Your task to perform on an android device: When is my next meeting? Image 0: 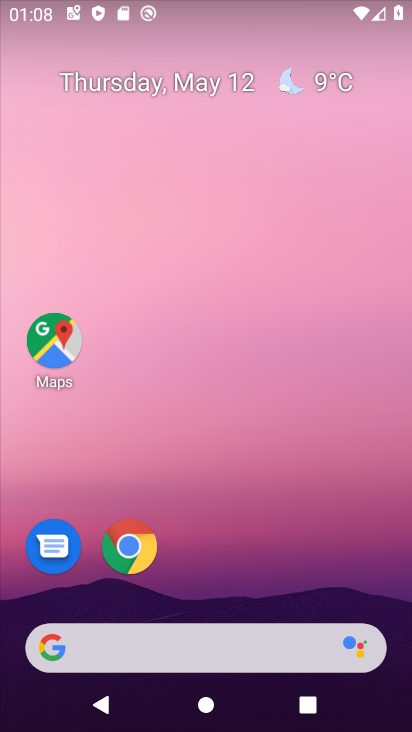
Step 0: drag from (161, 585) to (200, 264)
Your task to perform on an android device: When is my next meeting? Image 1: 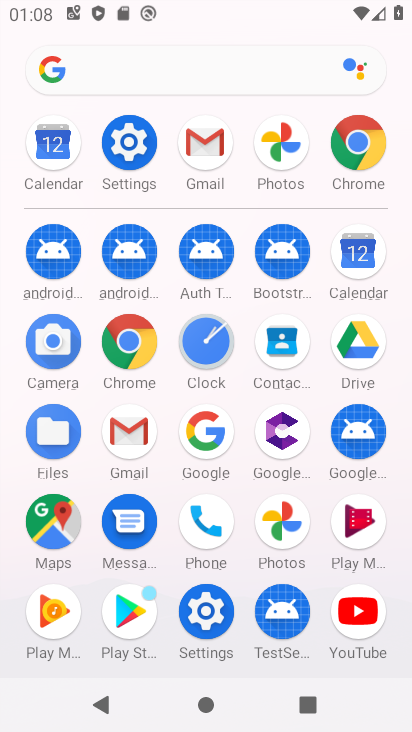
Step 1: click (350, 257)
Your task to perform on an android device: When is my next meeting? Image 2: 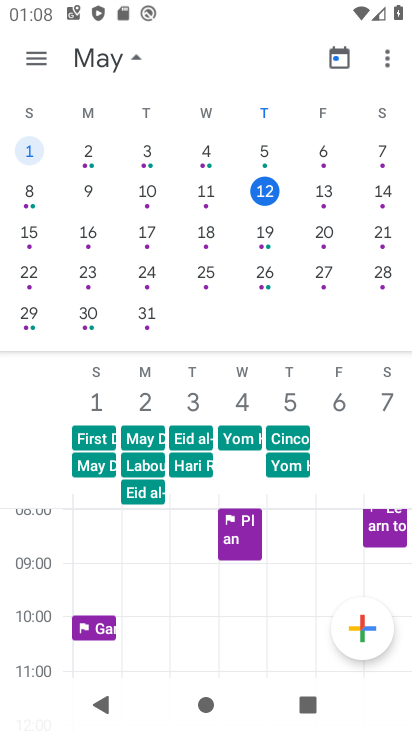
Step 2: click (325, 196)
Your task to perform on an android device: When is my next meeting? Image 3: 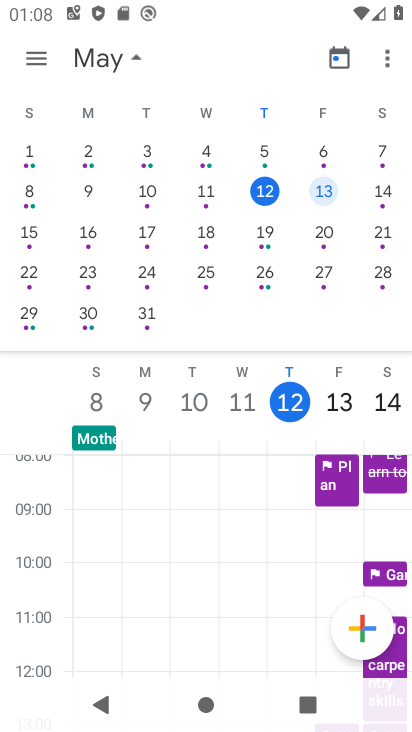
Step 3: click (380, 183)
Your task to perform on an android device: When is my next meeting? Image 4: 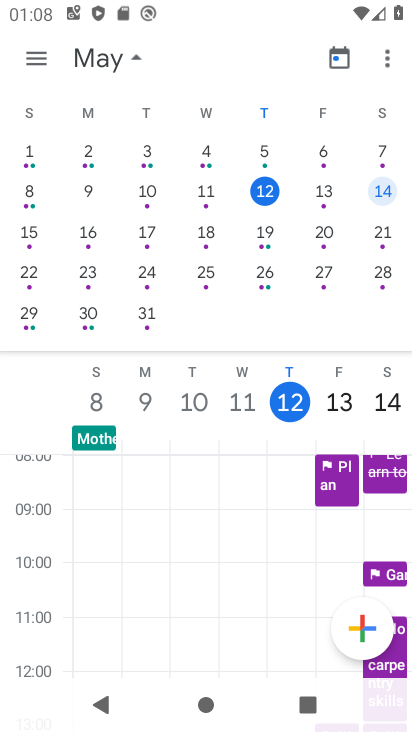
Step 4: click (26, 239)
Your task to perform on an android device: When is my next meeting? Image 5: 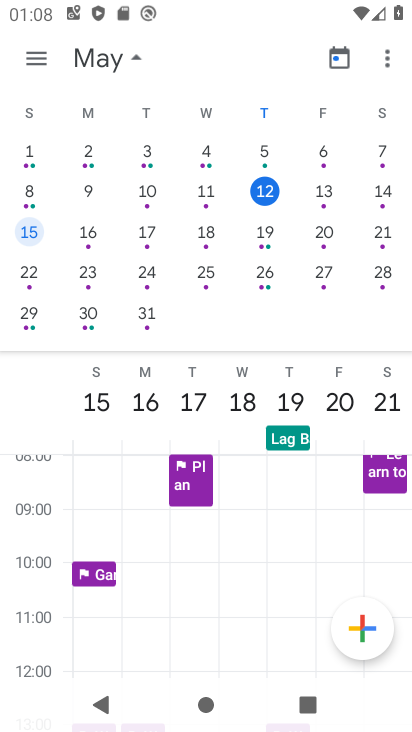
Step 5: click (99, 235)
Your task to perform on an android device: When is my next meeting? Image 6: 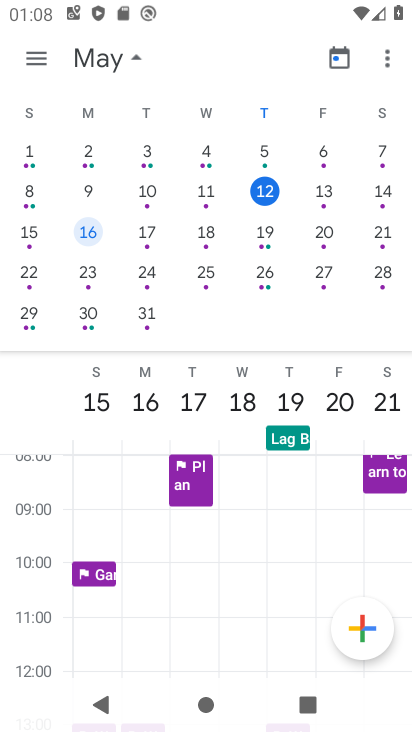
Step 6: click (137, 237)
Your task to perform on an android device: When is my next meeting? Image 7: 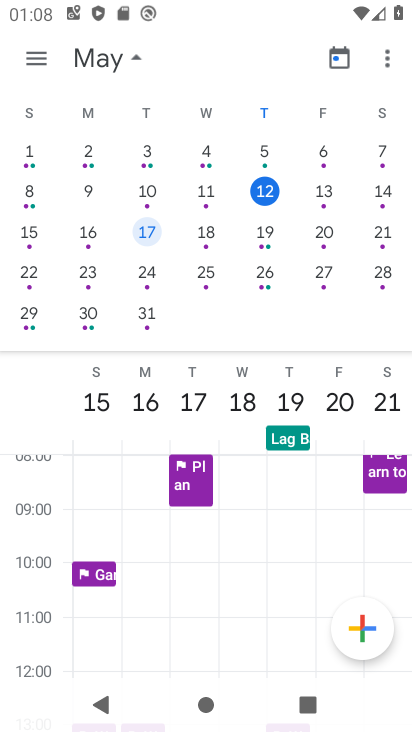
Step 7: click (205, 229)
Your task to perform on an android device: When is my next meeting? Image 8: 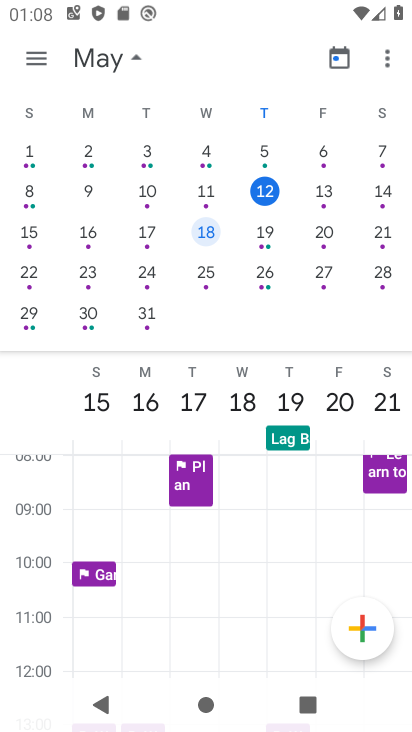
Step 8: click (267, 229)
Your task to perform on an android device: When is my next meeting? Image 9: 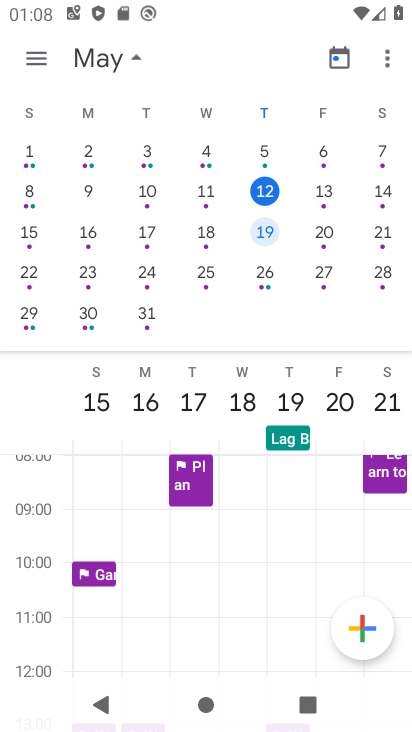
Step 9: click (325, 233)
Your task to perform on an android device: When is my next meeting? Image 10: 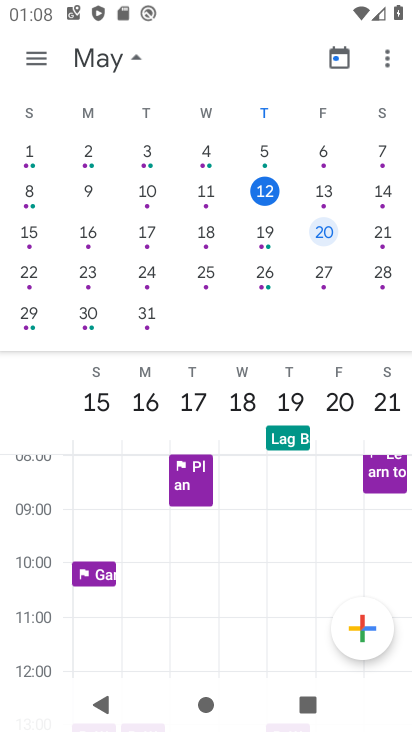
Step 10: click (380, 233)
Your task to perform on an android device: When is my next meeting? Image 11: 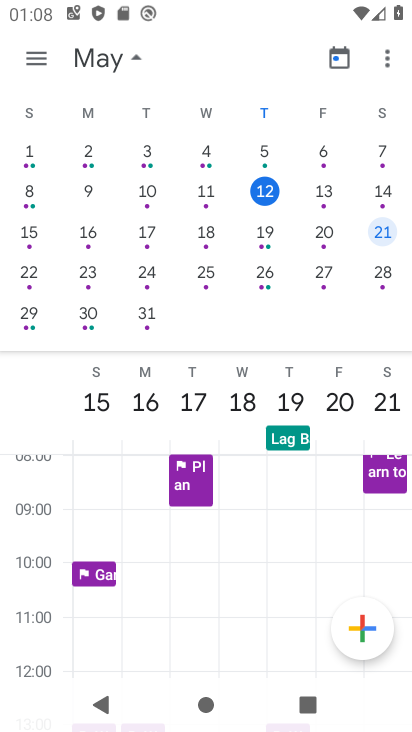
Step 11: click (26, 277)
Your task to perform on an android device: When is my next meeting? Image 12: 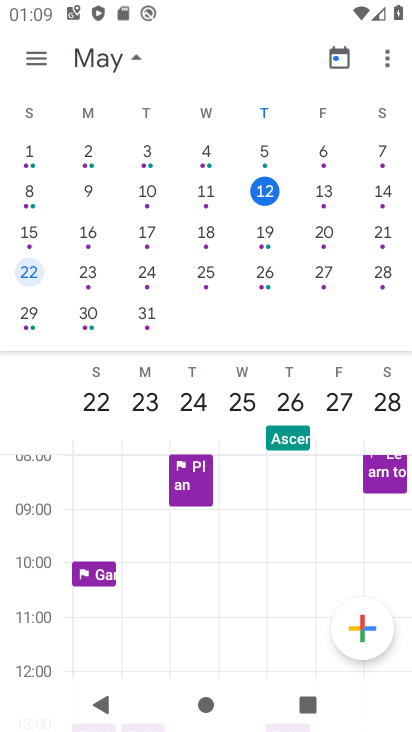
Step 12: click (79, 272)
Your task to perform on an android device: When is my next meeting? Image 13: 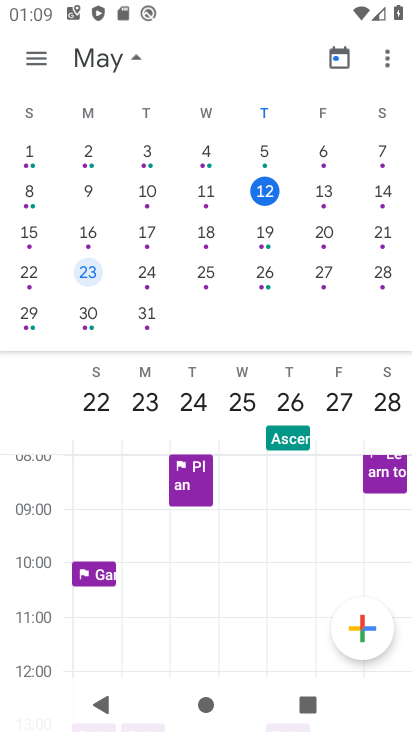
Step 13: click (152, 272)
Your task to perform on an android device: When is my next meeting? Image 14: 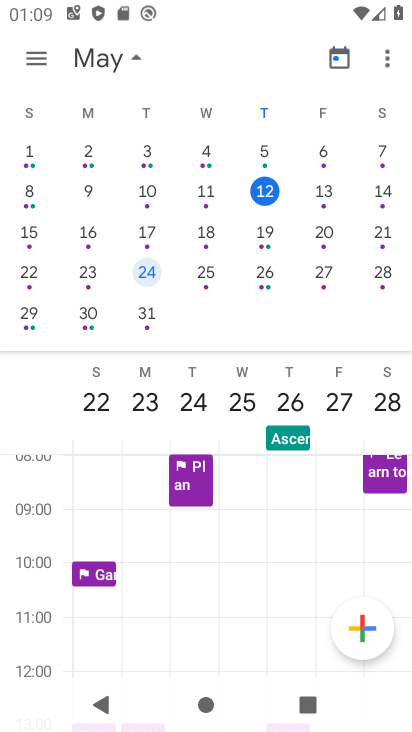
Step 14: click (207, 268)
Your task to perform on an android device: When is my next meeting? Image 15: 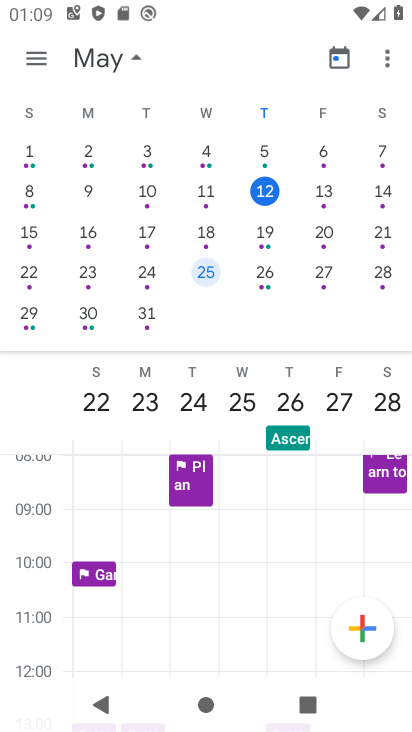
Step 15: click (280, 270)
Your task to perform on an android device: When is my next meeting? Image 16: 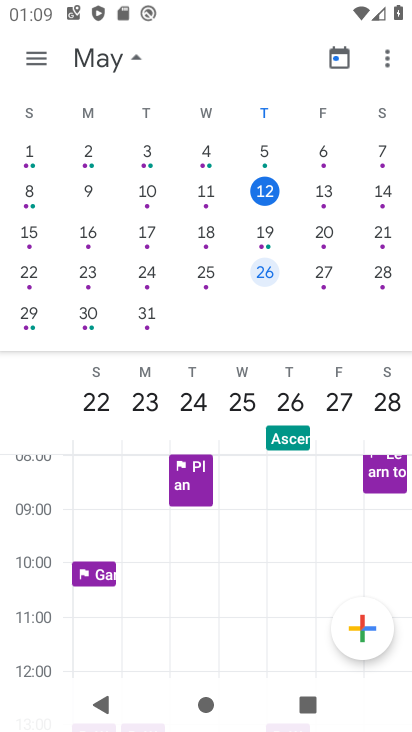
Step 16: click (326, 270)
Your task to perform on an android device: When is my next meeting? Image 17: 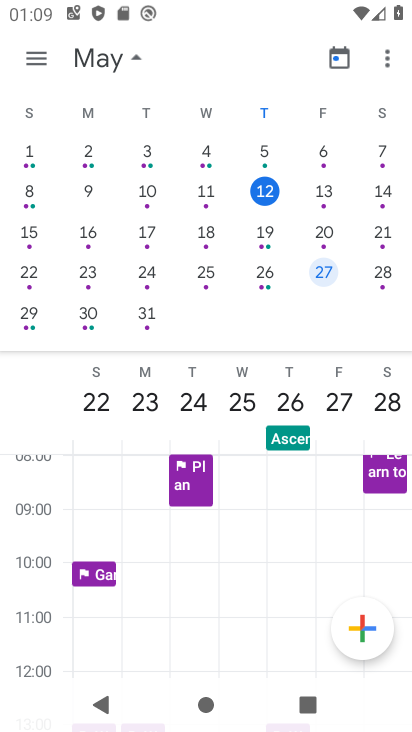
Step 17: click (372, 275)
Your task to perform on an android device: When is my next meeting? Image 18: 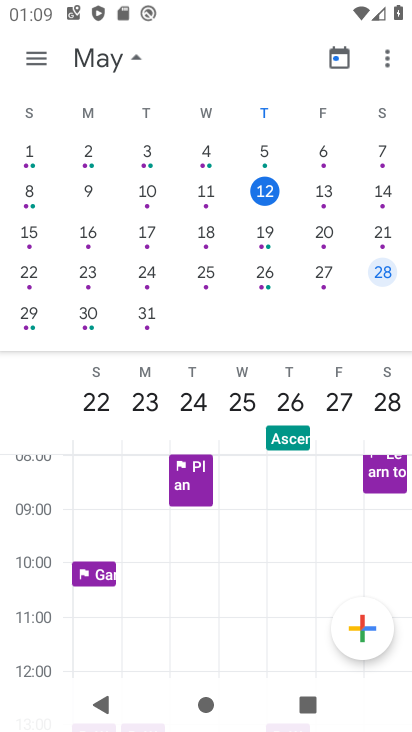
Step 18: click (32, 328)
Your task to perform on an android device: When is my next meeting? Image 19: 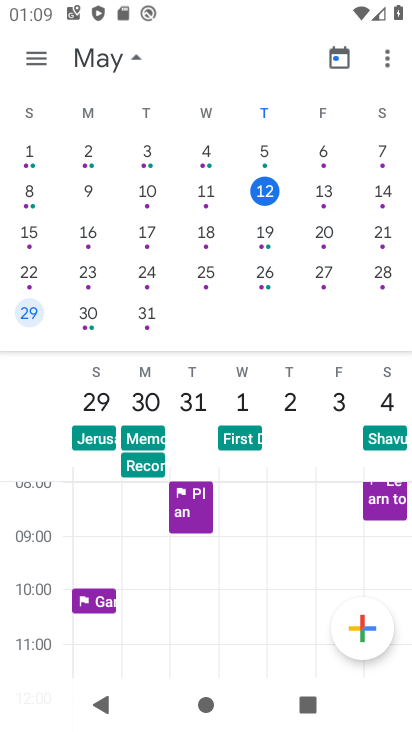
Step 19: click (85, 322)
Your task to perform on an android device: When is my next meeting? Image 20: 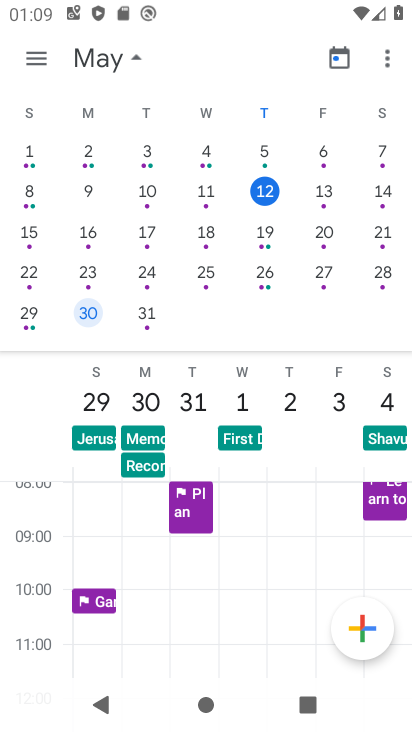
Step 20: click (144, 317)
Your task to perform on an android device: When is my next meeting? Image 21: 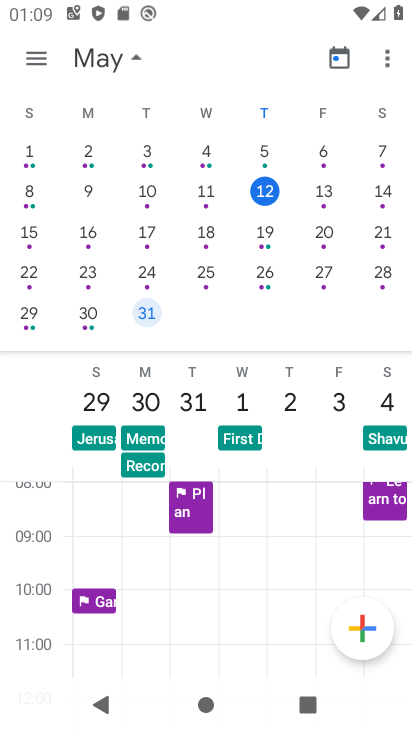
Step 21: task complete